Your task to perform on an android device: set the stopwatch Image 0: 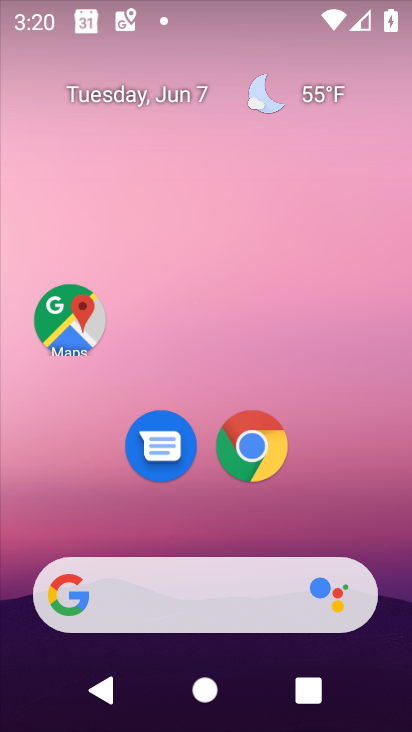
Step 0: drag from (227, 561) to (315, 41)
Your task to perform on an android device: set the stopwatch Image 1: 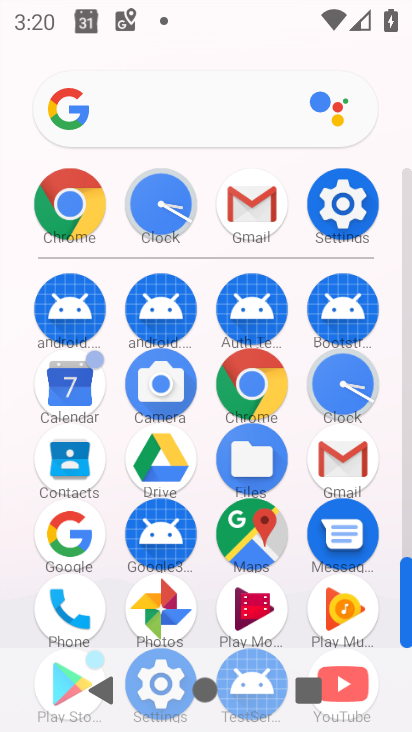
Step 1: click (366, 385)
Your task to perform on an android device: set the stopwatch Image 2: 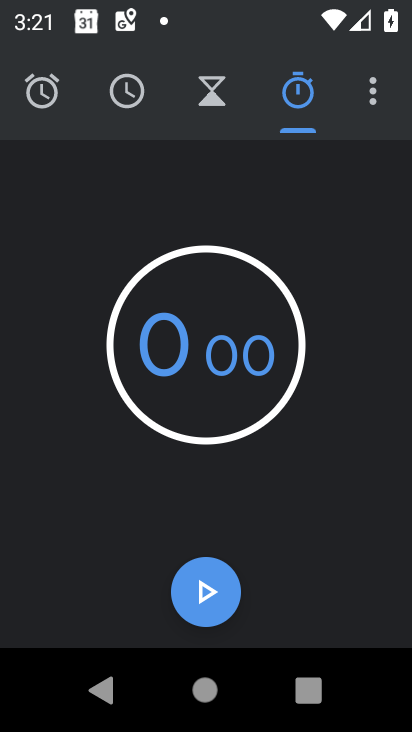
Step 2: click (201, 614)
Your task to perform on an android device: set the stopwatch Image 3: 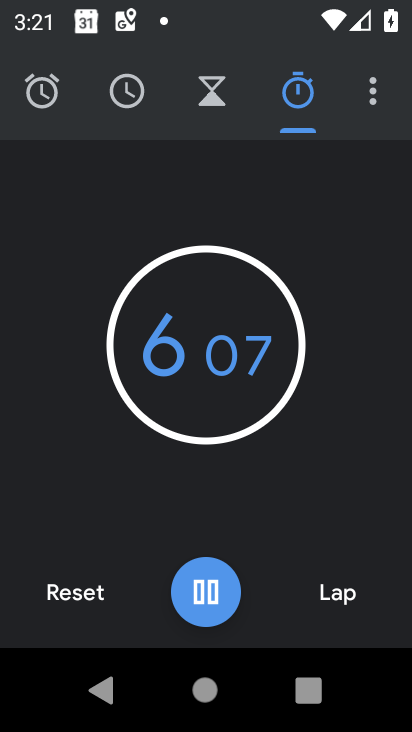
Step 3: task complete